Your task to perform on an android device: toggle translation in the chrome app Image 0: 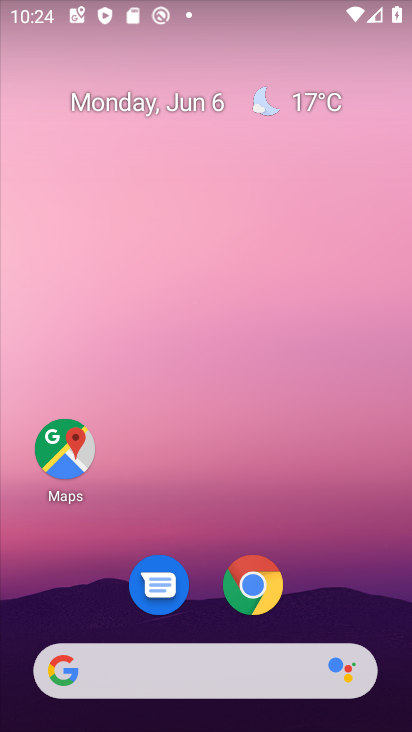
Step 0: click (248, 579)
Your task to perform on an android device: toggle translation in the chrome app Image 1: 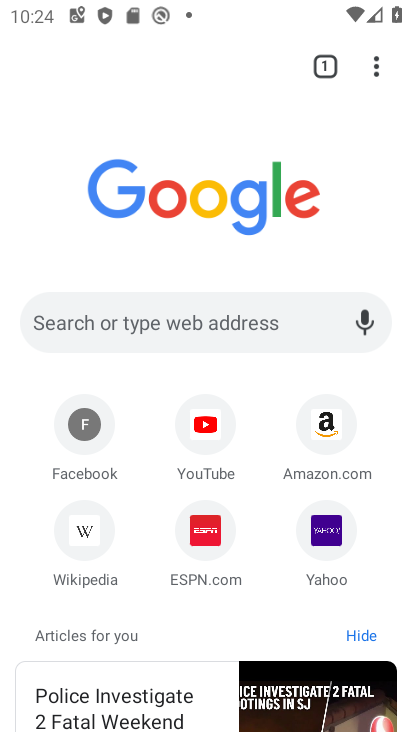
Step 1: click (371, 66)
Your task to perform on an android device: toggle translation in the chrome app Image 2: 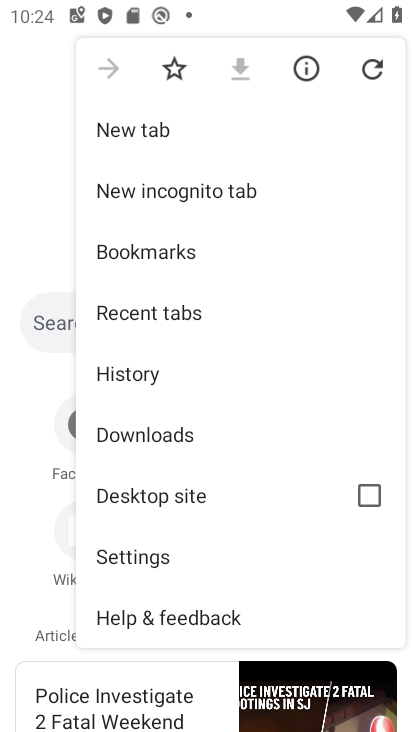
Step 2: click (189, 555)
Your task to perform on an android device: toggle translation in the chrome app Image 3: 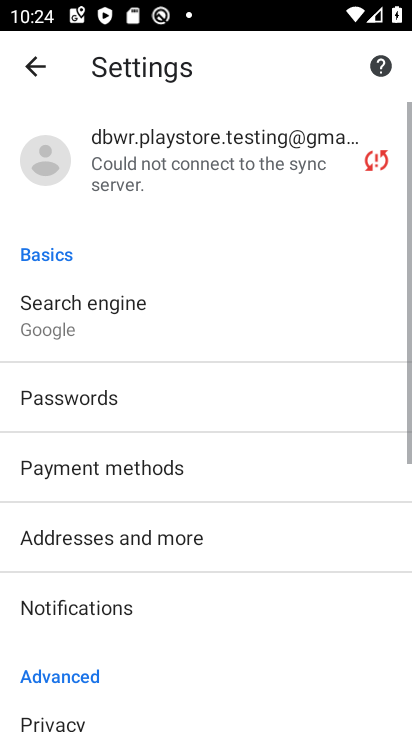
Step 3: drag from (213, 526) to (261, 141)
Your task to perform on an android device: toggle translation in the chrome app Image 4: 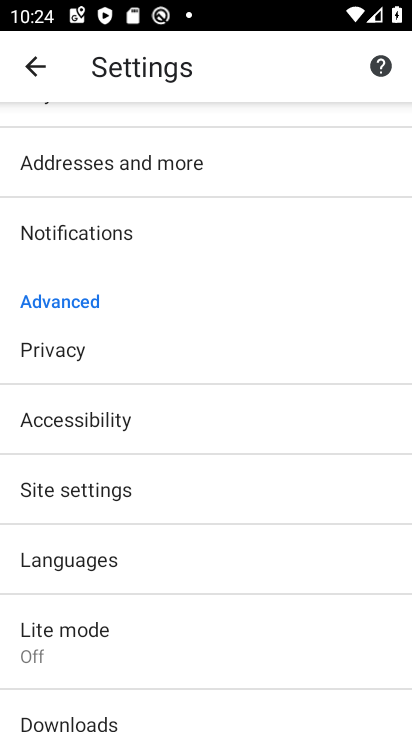
Step 4: click (207, 553)
Your task to perform on an android device: toggle translation in the chrome app Image 5: 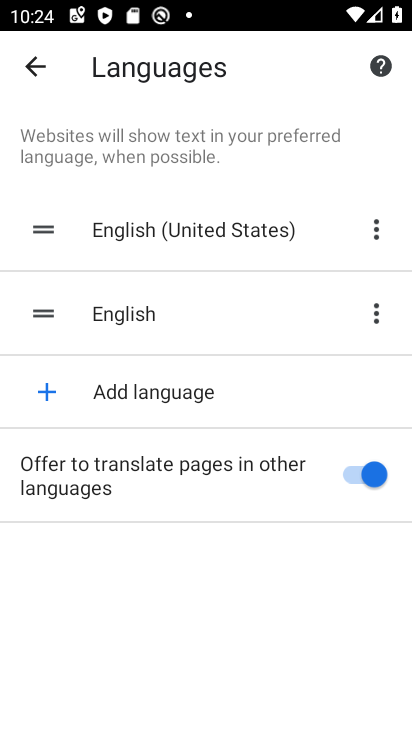
Step 5: click (357, 471)
Your task to perform on an android device: toggle translation in the chrome app Image 6: 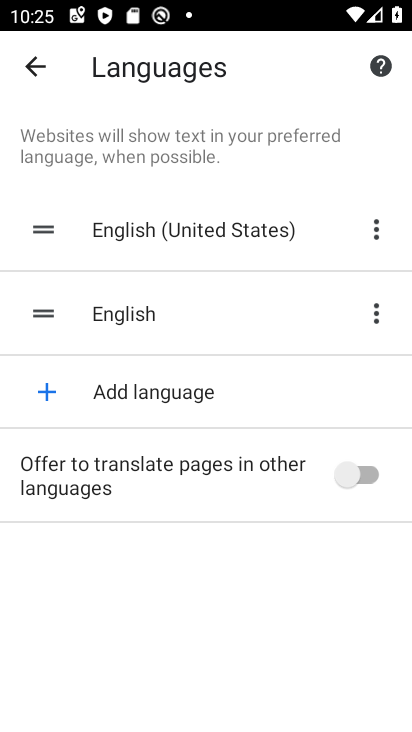
Step 6: task complete